Your task to perform on an android device: Go to Android settings Image 0: 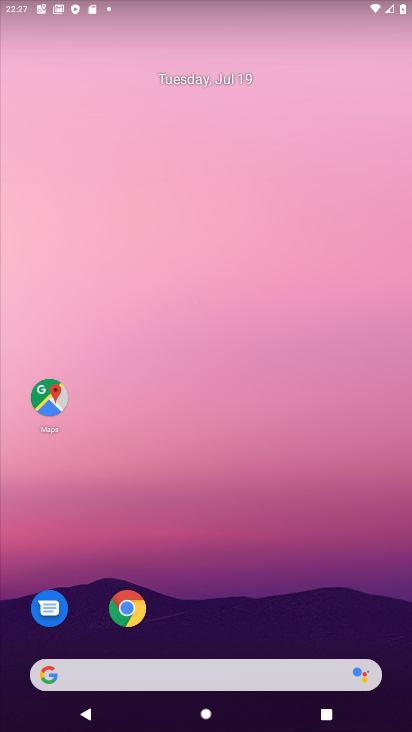
Step 0: drag from (315, 591) to (259, 31)
Your task to perform on an android device: Go to Android settings Image 1: 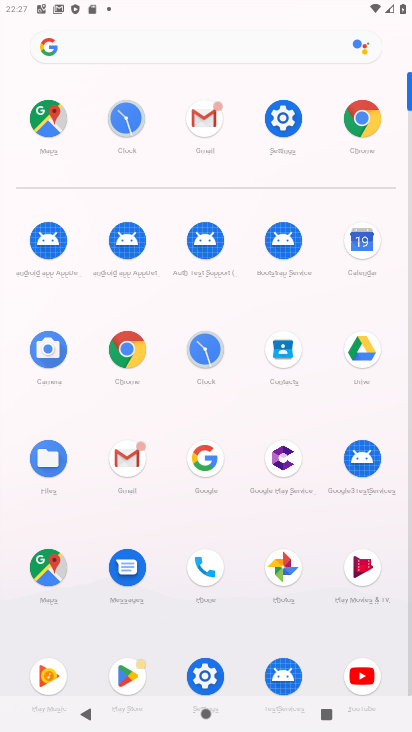
Step 1: click (282, 111)
Your task to perform on an android device: Go to Android settings Image 2: 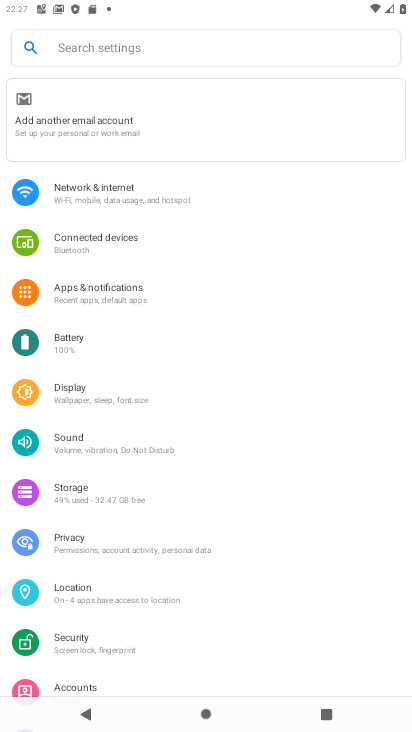
Step 2: task complete